Your task to perform on an android device: refresh tabs in the chrome app Image 0: 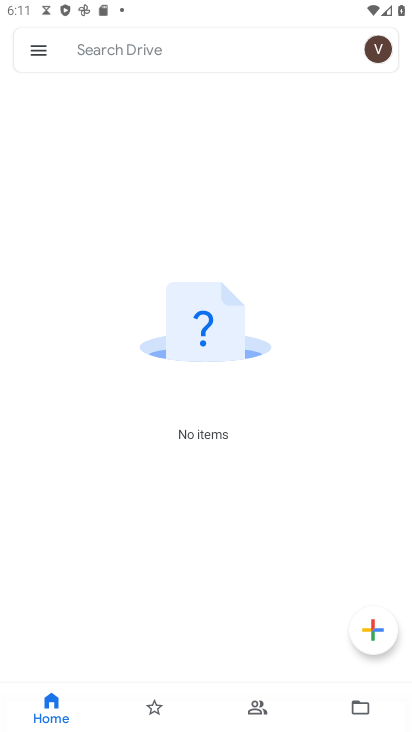
Step 0: press back button
Your task to perform on an android device: refresh tabs in the chrome app Image 1: 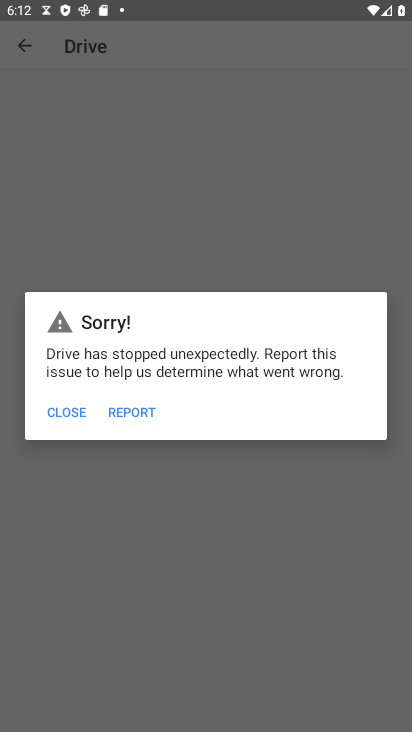
Step 1: press home button
Your task to perform on an android device: refresh tabs in the chrome app Image 2: 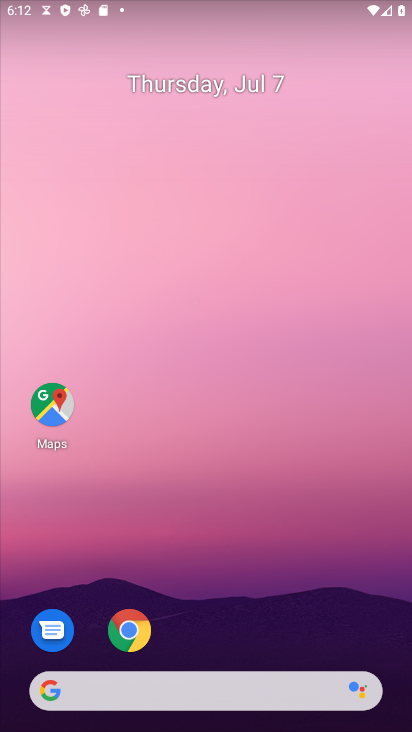
Step 2: click (123, 640)
Your task to perform on an android device: refresh tabs in the chrome app Image 3: 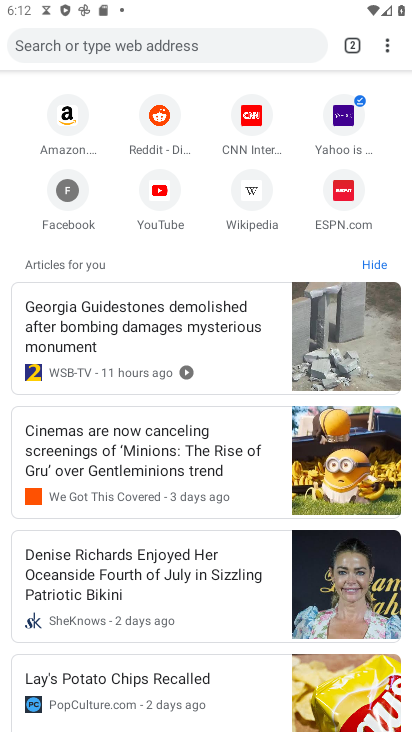
Step 3: click (388, 46)
Your task to perform on an android device: refresh tabs in the chrome app Image 4: 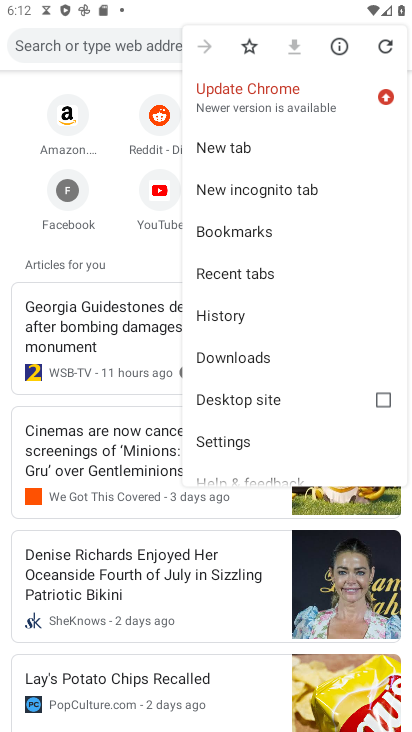
Step 4: click (382, 46)
Your task to perform on an android device: refresh tabs in the chrome app Image 5: 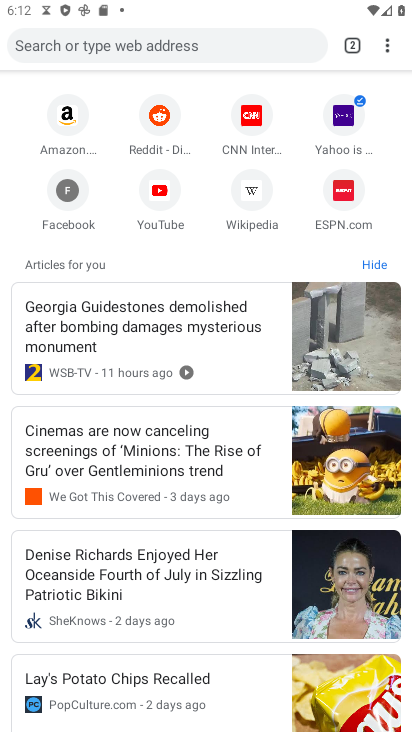
Step 5: task complete